Your task to perform on an android device: Go to battery settings Image 0: 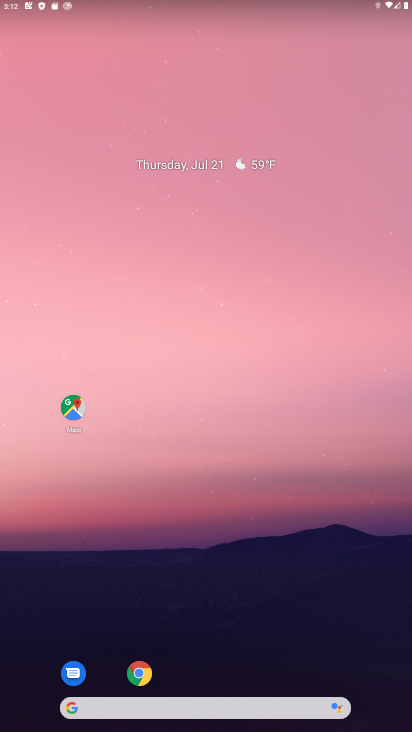
Step 0: drag from (266, 645) to (96, 149)
Your task to perform on an android device: Go to battery settings Image 1: 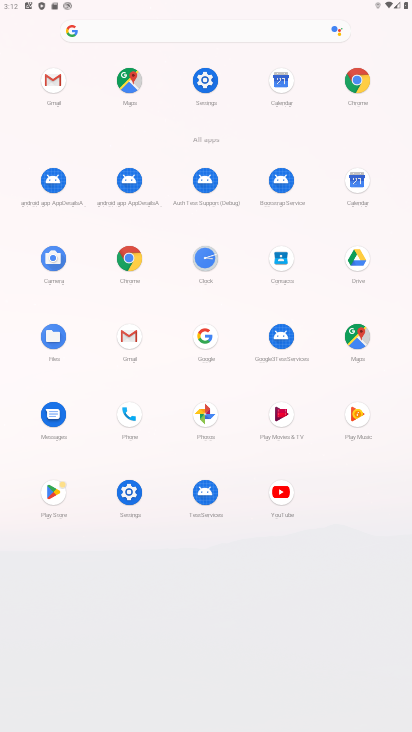
Step 1: click (198, 89)
Your task to perform on an android device: Go to battery settings Image 2: 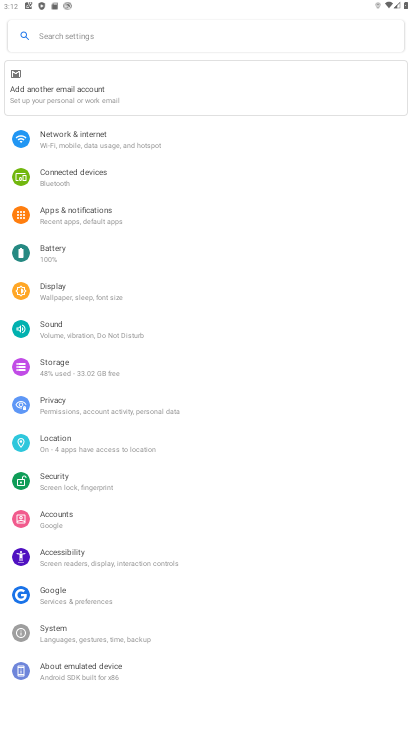
Step 2: click (75, 246)
Your task to perform on an android device: Go to battery settings Image 3: 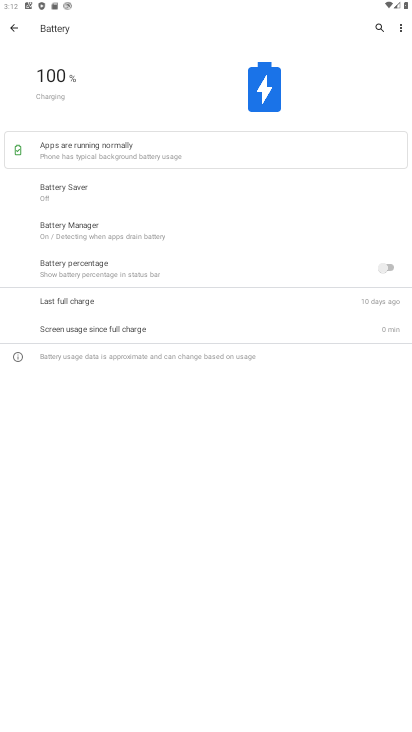
Step 3: task complete